Your task to perform on an android device: turn off notifications in google photos Image 0: 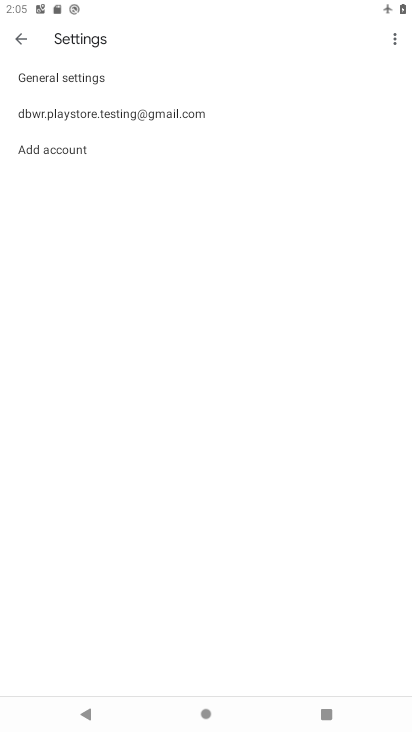
Step 0: press home button
Your task to perform on an android device: turn off notifications in google photos Image 1: 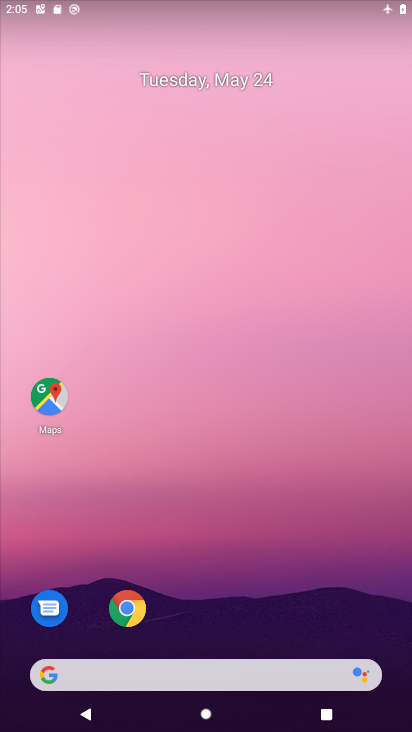
Step 1: drag from (302, 639) to (279, 47)
Your task to perform on an android device: turn off notifications in google photos Image 2: 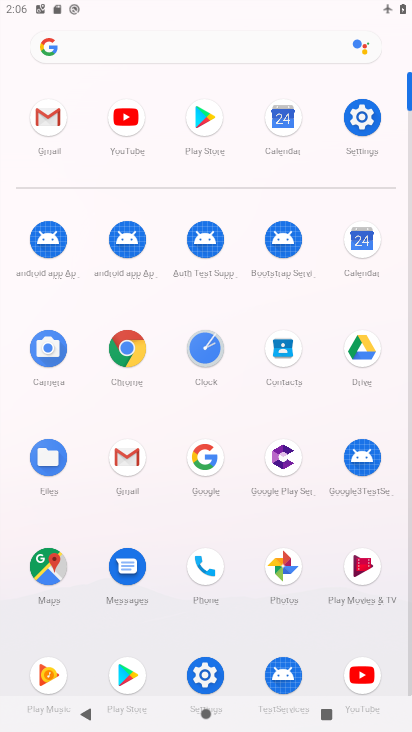
Step 2: click (284, 569)
Your task to perform on an android device: turn off notifications in google photos Image 3: 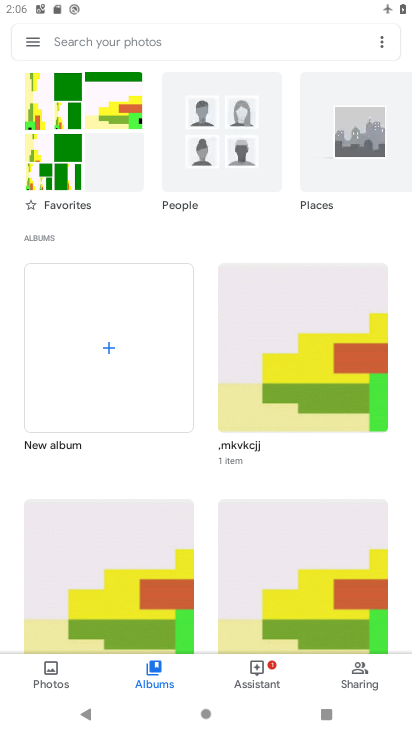
Step 3: click (27, 46)
Your task to perform on an android device: turn off notifications in google photos Image 4: 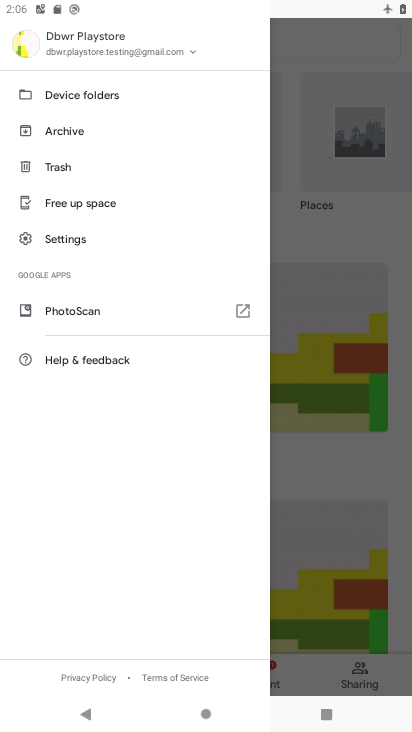
Step 4: click (84, 230)
Your task to perform on an android device: turn off notifications in google photos Image 5: 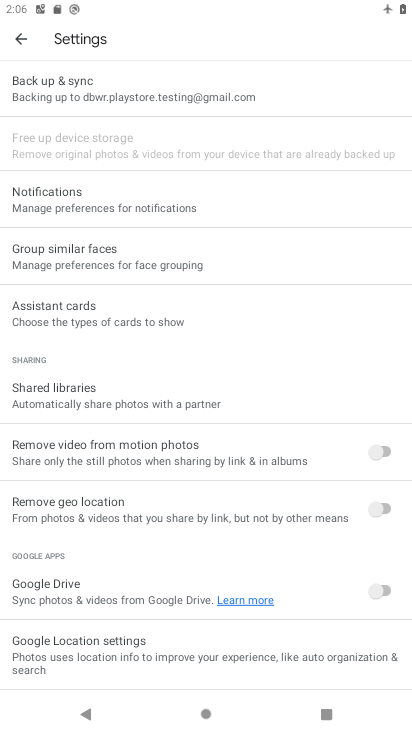
Step 5: click (209, 223)
Your task to perform on an android device: turn off notifications in google photos Image 6: 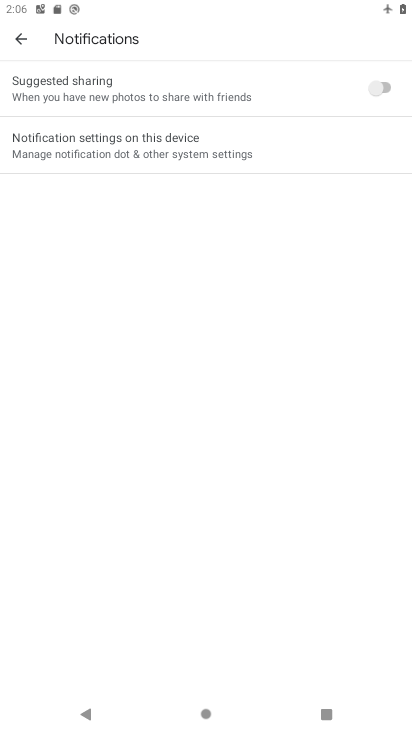
Step 6: click (386, 86)
Your task to perform on an android device: turn off notifications in google photos Image 7: 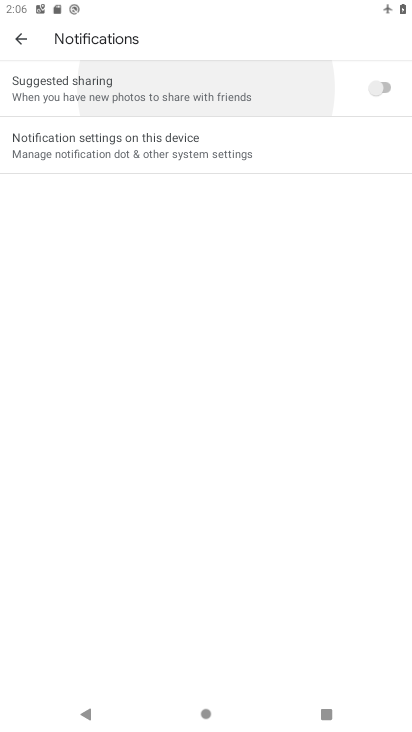
Step 7: click (386, 86)
Your task to perform on an android device: turn off notifications in google photos Image 8: 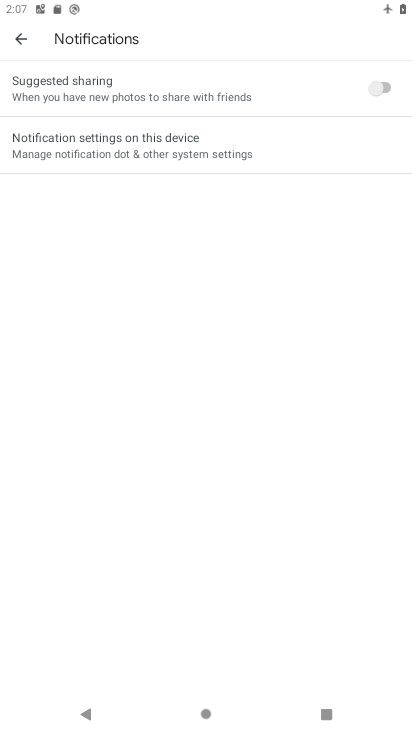
Step 8: task complete